Your task to perform on an android device: open app "Microsoft Excel" Image 0: 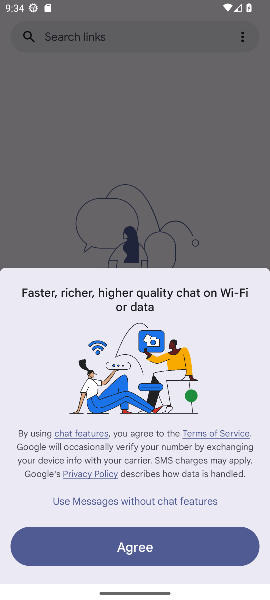
Step 0: drag from (143, 474) to (201, 233)
Your task to perform on an android device: open app "Microsoft Excel" Image 1: 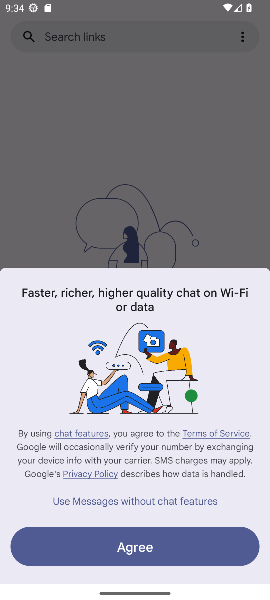
Step 1: press home button
Your task to perform on an android device: open app "Microsoft Excel" Image 2: 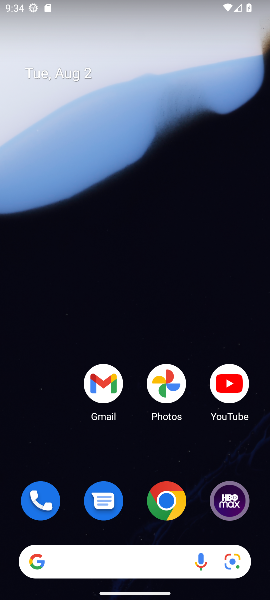
Step 2: drag from (134, 515) to (132, 159)
Your task to perform on an android device: open app "Microsoft Excel" Image 3: 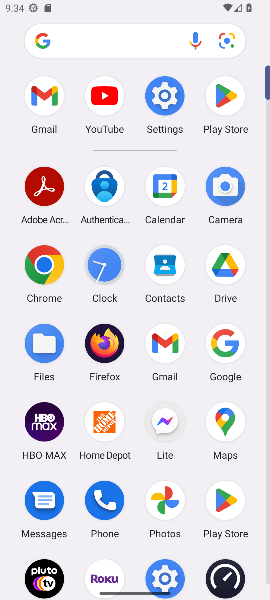
Step 3: click (228, 98)
Your task to perform on an android device: open app "Microsoft Excel" Image 4: 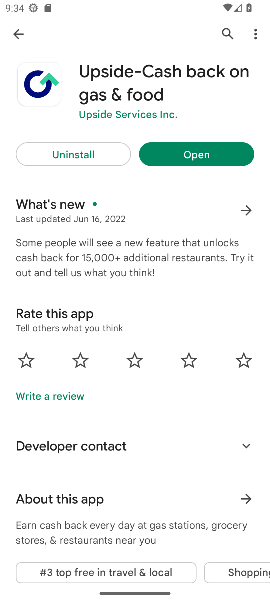
Step 4: click (226, 30)
Your task to perform on an android device: open app "Microsoft Excel" Image 5: 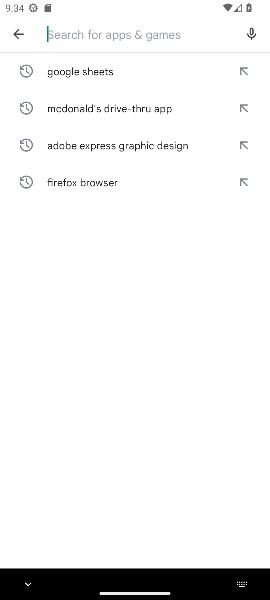
Step 5: type "Microsoft Excel"
Your task to perform on an android device: open app "Microsoft Excel" Image 6: 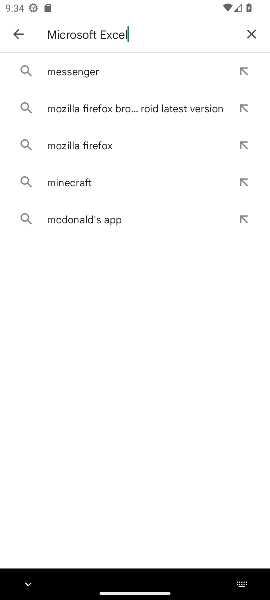
Step 6: type ""
Your task to perform on an android device: open app "Microsoft Excel" Image 7: 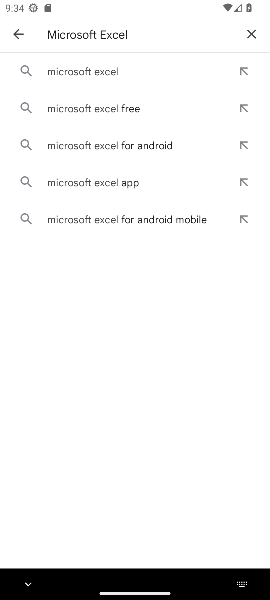
Step 7: click (91, 71)
Your task to perform on an android device: open app "Microsoft Excel" Image 8: 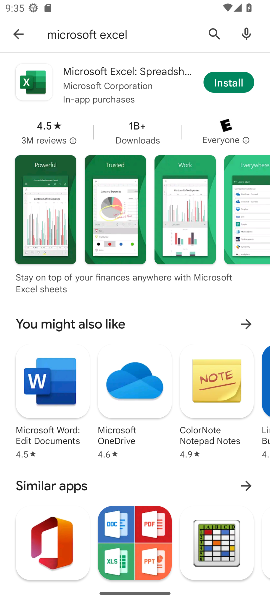
Step 8: click (139, 405)
Your task to perform on an android device: open app "Microsoft Excel" Image 9: 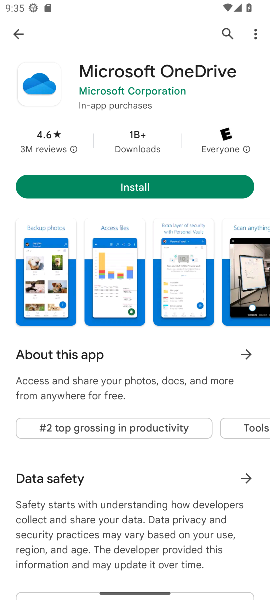
Step 9: drag from (183, 110) to (159, 480)
Your task to perform on an android device: open app "Microsoft Excel" Image 10: 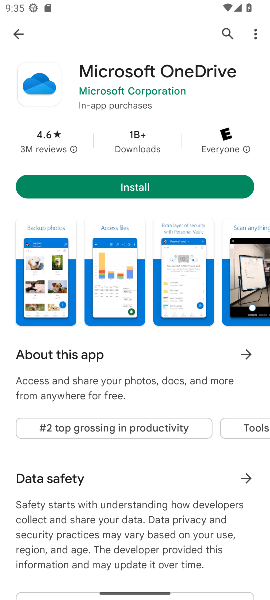
Step 10: click (226, 30)
Your task to perform on an android device: open app "Microsoft Excel" Image 11: 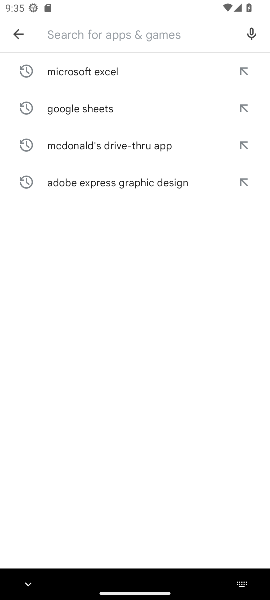
Step 11: click (74, 73)
Your task to perform on an android device: open app "Microsoft Excel" Image 12: 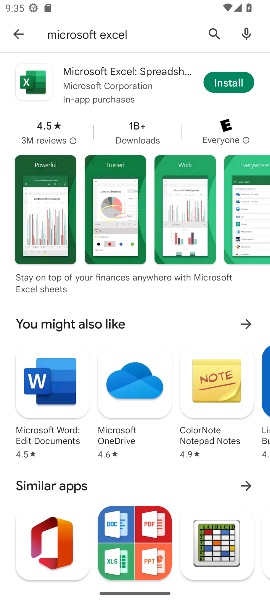
Step 12: click (126, 75)
Your task to perform on an android device: open app "Microsoft Excel" Image 13: 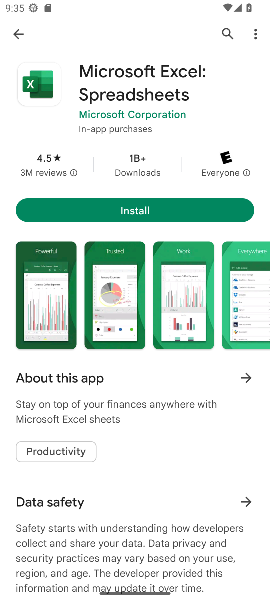
Step 13: task complete